Your task to perform on an android device: Go to Yahoo.com Image 0: 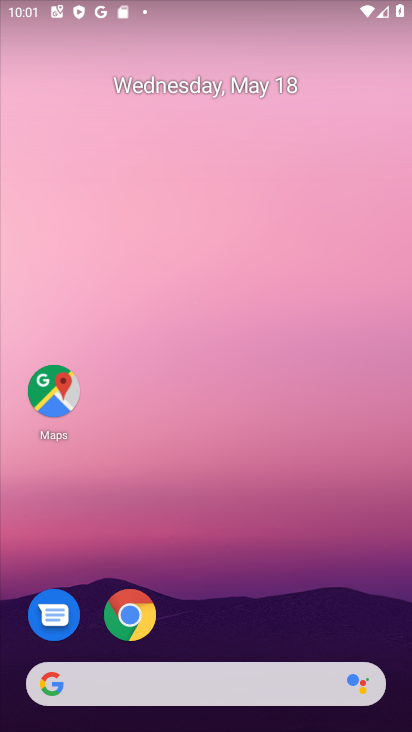
Step 0: drag from (286, 617) to (265, 2)
Your task to perform on an android device: Go to Yahoo.com Image 1: 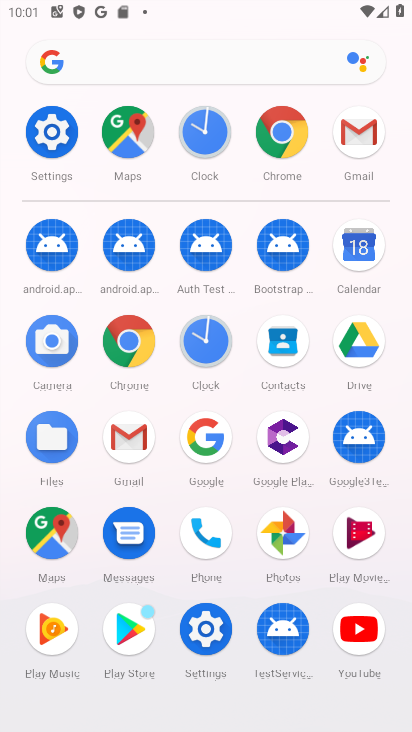
Step 1: click (131, 337)
Your task to perform on an android device: Go to Yahoo.com Image 2: 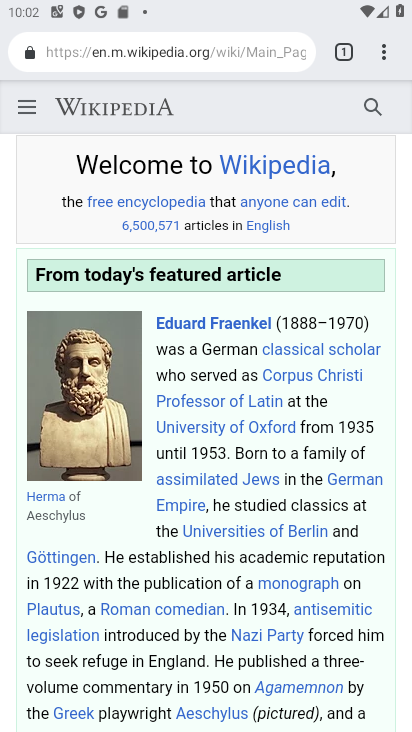
Step 2: click (350, 51)
Your task to perform on an android device: Go to Yahoo.com Image 3: 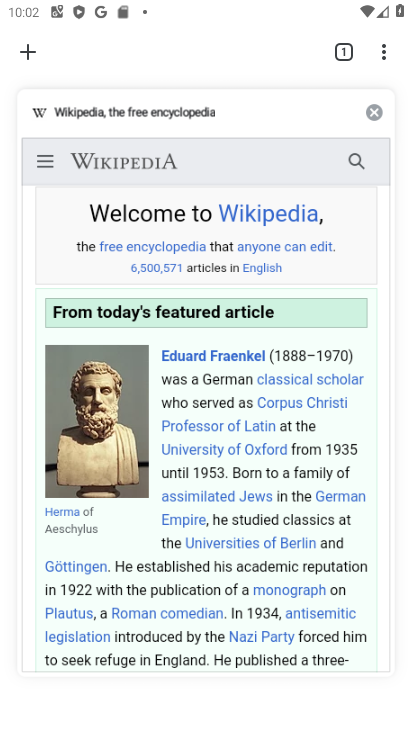
Step 3: click (380, 115)
Your task to perform on an android device: Go to Yahoo.com Image 4: 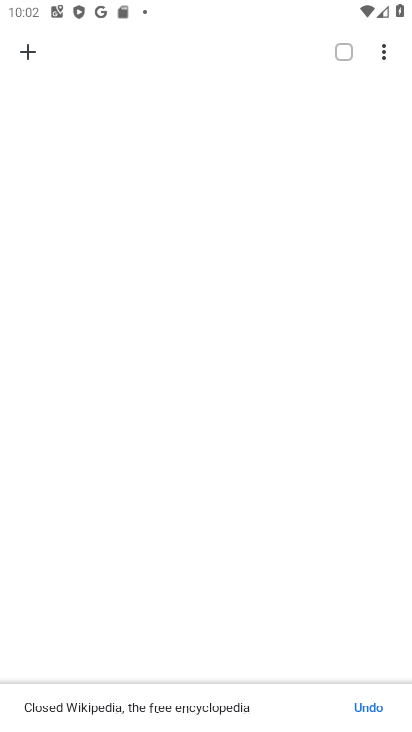
Step 4: click (30, 55)
Your task to perform on an android device: Go to Yahoo.com Image 5: 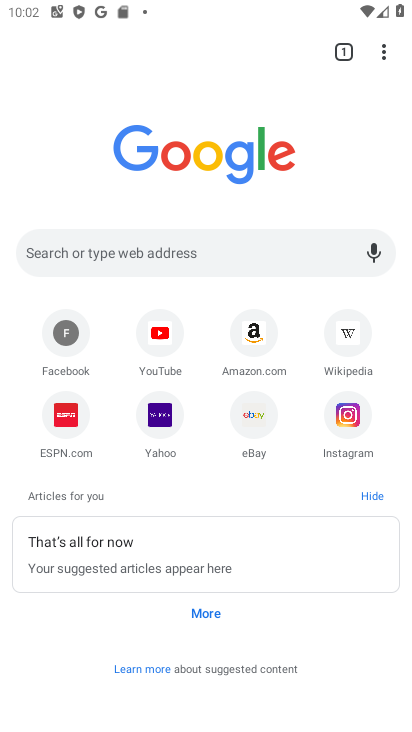
Step 5: click (155, 417)
Your task to perform on an android device: Go to Yahoo.com Image 6: 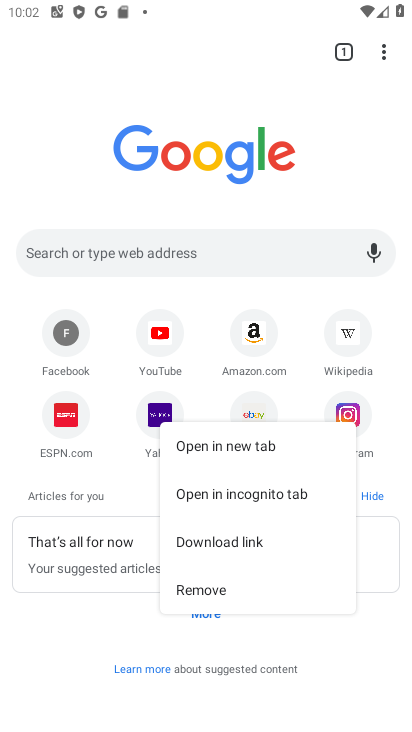
Step 6: task complete